Your task to perform on an android device: What's the weather going to be tomorrow? Image 0: 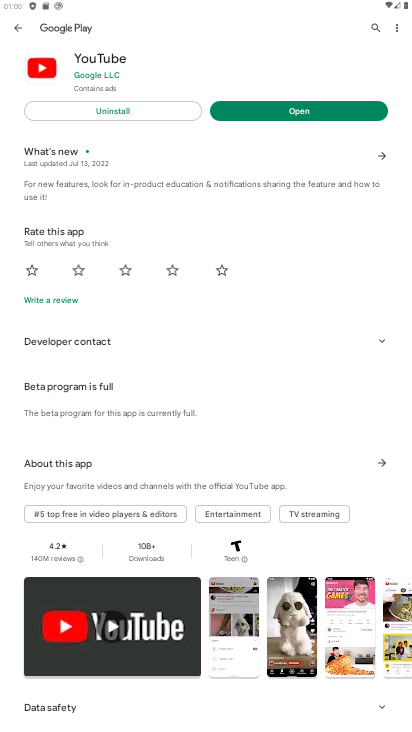
Step 0: press home button
Your task to perform on an android device: What's the weather going to be tomorrow? Image 1: 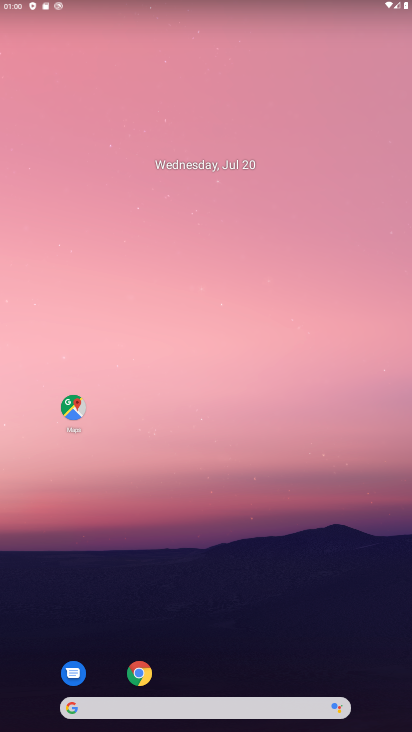
Step 1: drag from (198, 660) to (205, 138)
Your task to perform on an android device: What's the weather going to be tomorrow? Image 2: 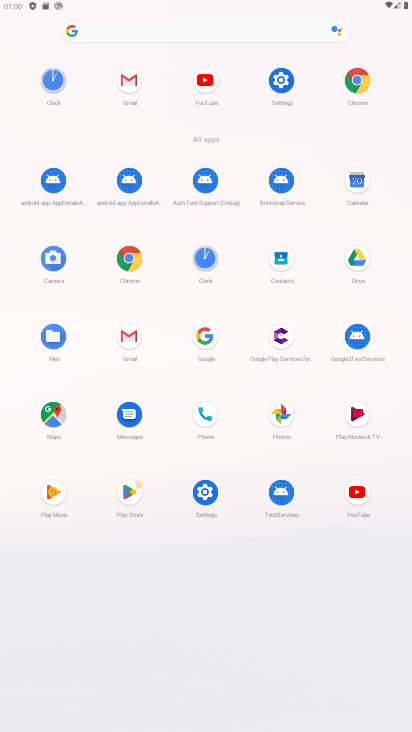
Step 2: click (292, 66)
Your task to perform on an android device: What's the weather going to be tomorrow? Image 3: 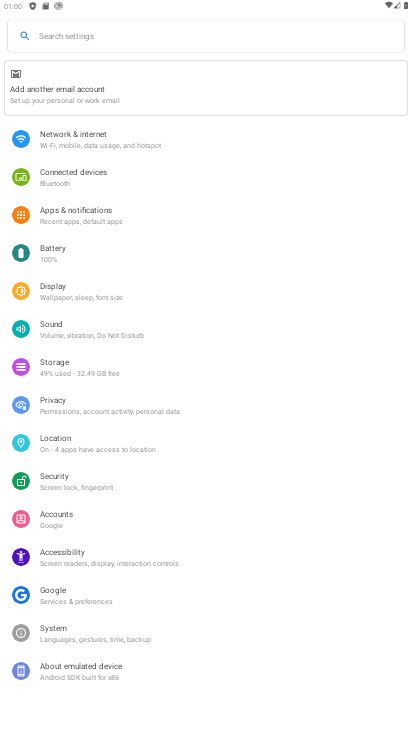
Step 3: press home button
Your task to perform on an android device: What's the weather going to be tomorrow? Image 4: 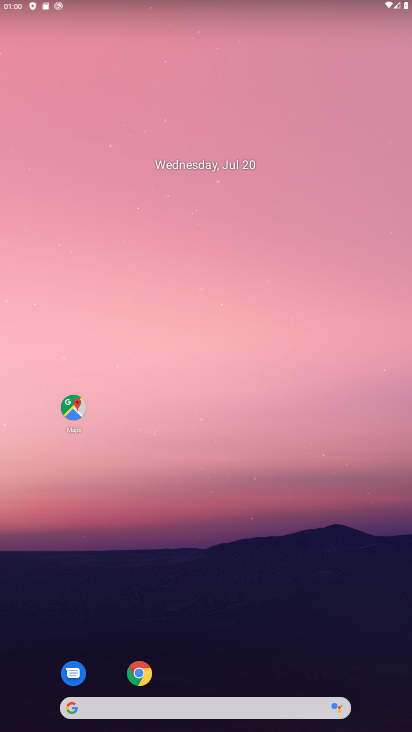
Step 4: click (147, 705)
Your task to perform on an android device: What's the weather going to be tomorrow? Image 5: 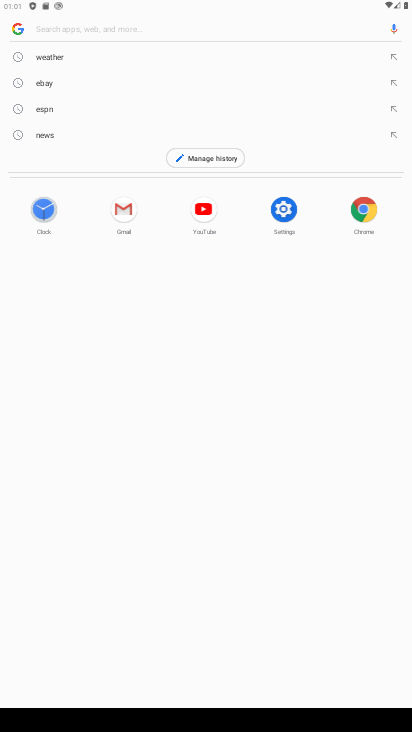
Step 5: click (72, 52)
Your task to perform on an android device: What's the weather going to be tomorrow? Image 6: 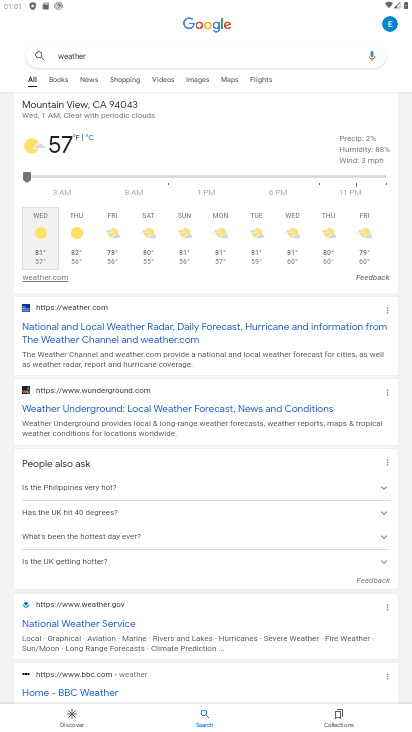
Step 6: task complete